Your task to perform on an android device: open device folders in google photos Image 0: 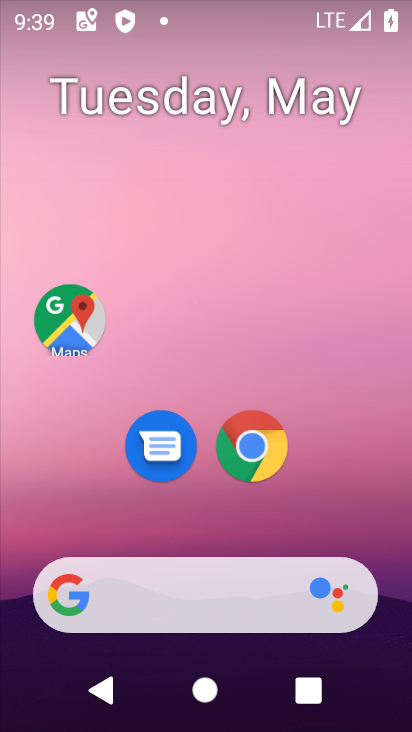
Step 0: drag from (229, 580) to (234, 88)
Your task to perform on an android device: open device folders in google photos Image 1: 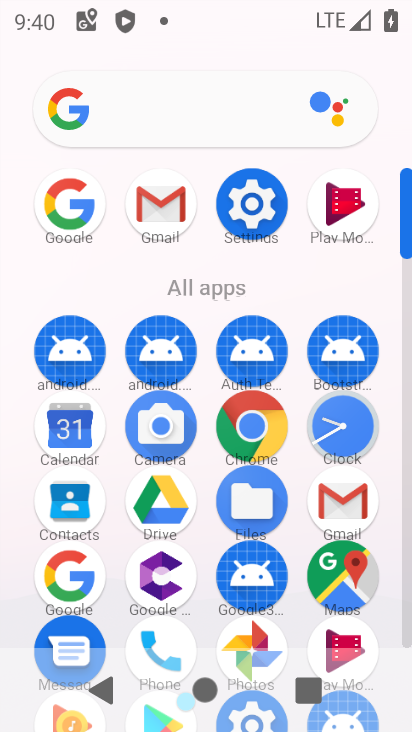
Step 1: click (240, 627)
Your task to perform on an android device: open device folders in google photos Image 2: 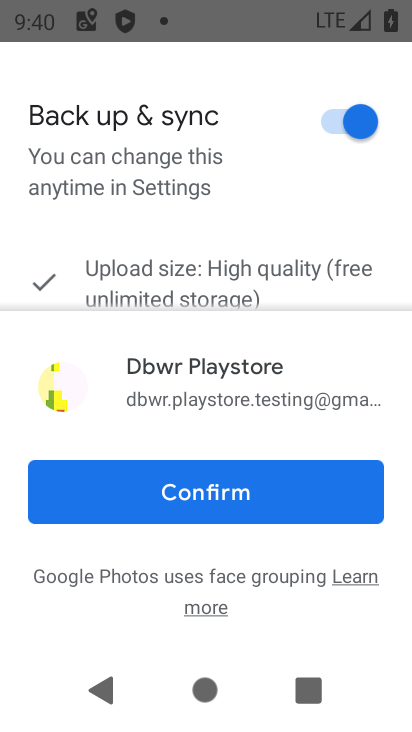
Step 2: click (218, 512)
Your task to perform on an android device: open device folders in google photos Image 3: 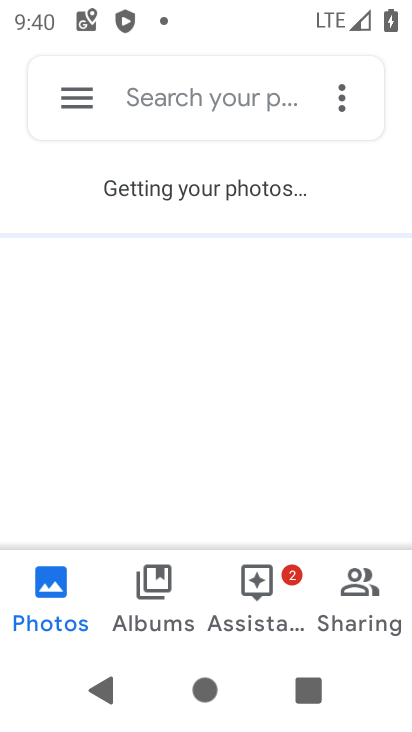
Step 3: click (160, 598)
Your task to perform on an android device: open device folders in google photos Image 4: 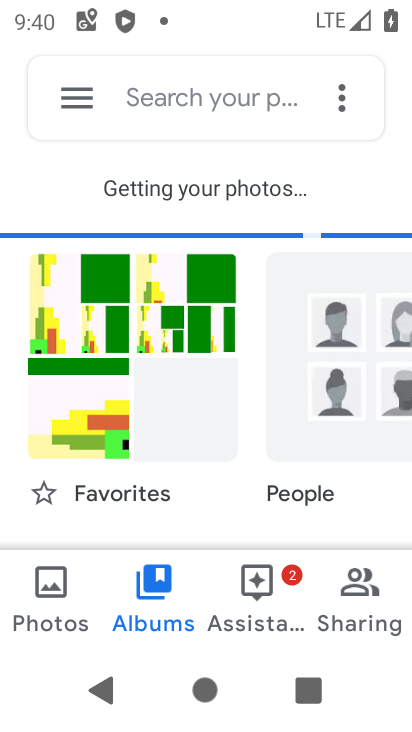
Step 4: task complete